Your task to perform on an android device: Open display settings Image 0: 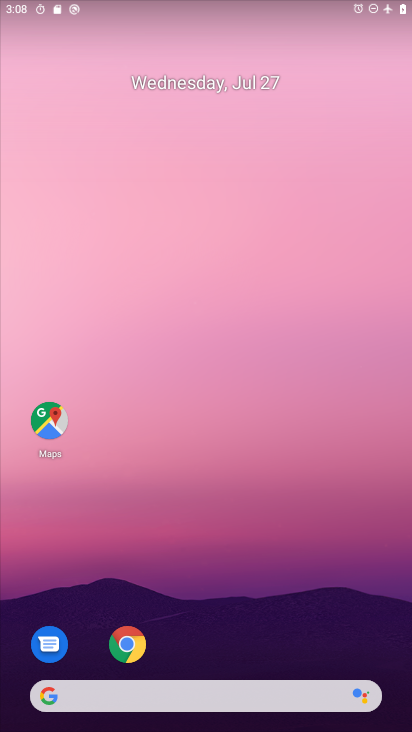
Step 0: drag from (161, 636) to (222, 274)
Your task to perform on an android device: Open display settings Image 1: 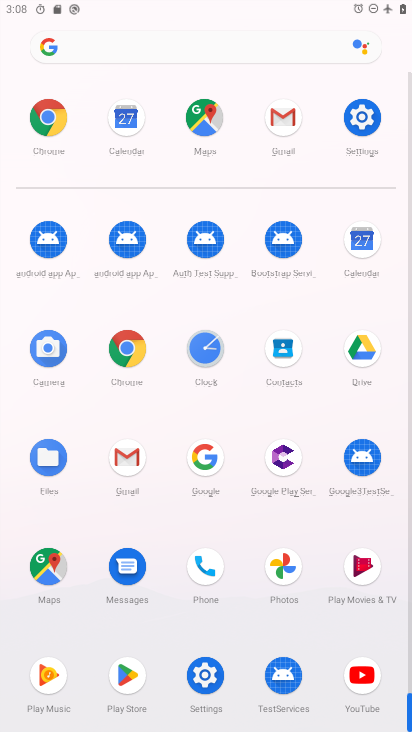
Step 1: click (204, 677)
Your task to perform on an android device: Open display settings Image 2: 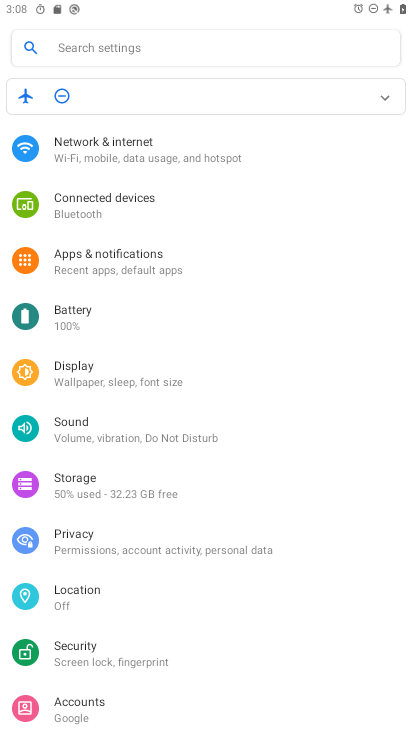
Step 2: click (98, 398)
Your task to perform on an android device: Open display settings Image 3: 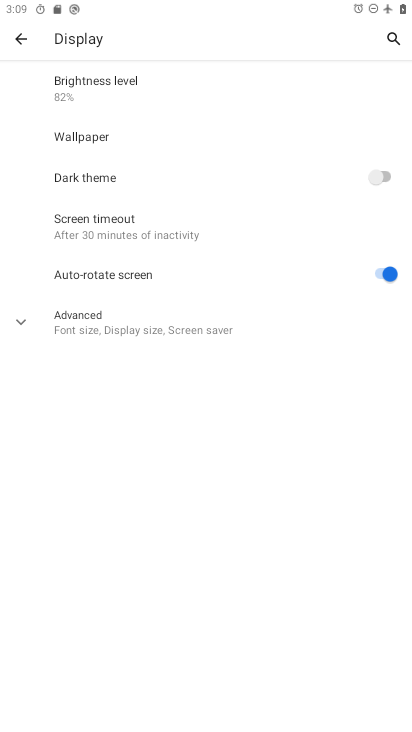
Step 3: task complete